Your task to perform on an android device: toggle wifi Image 0: 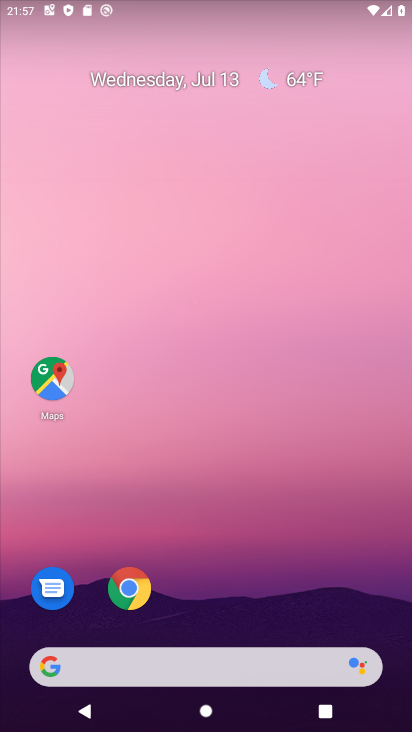
Step 0: drag from (89, 47) to (202, 638)
Your task to perform on an android device: toggle wifi Image 1: 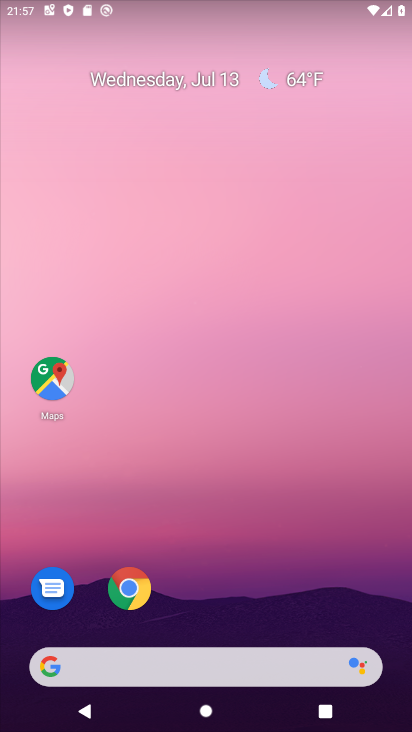
Step 1: drag from (75, 6) to (204, 538)
Your task to perform on an android device: toggle wifi Image 2: 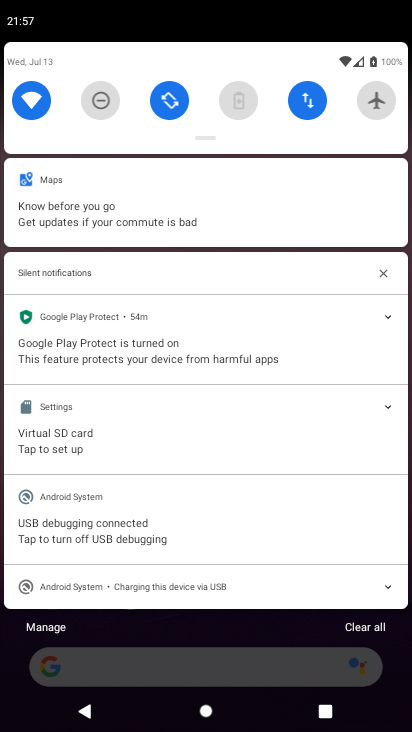
Step 2: click (26, 98)
Your task to perform on an android device: toggle wifi Image 3: 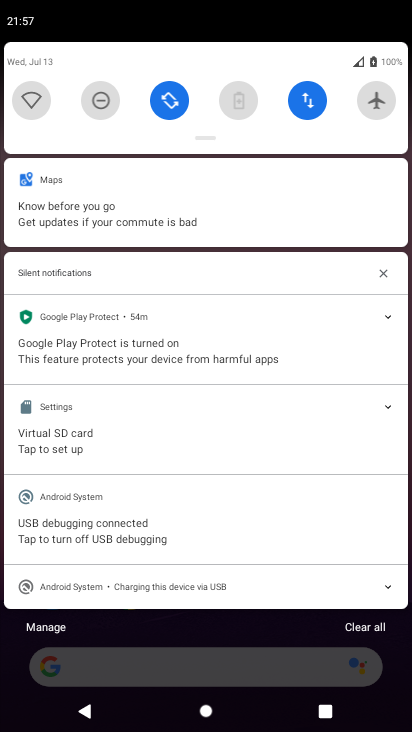
Step 3: task complete